Your task to perform on an android device: delete browsing data in the chrome app Image 0: 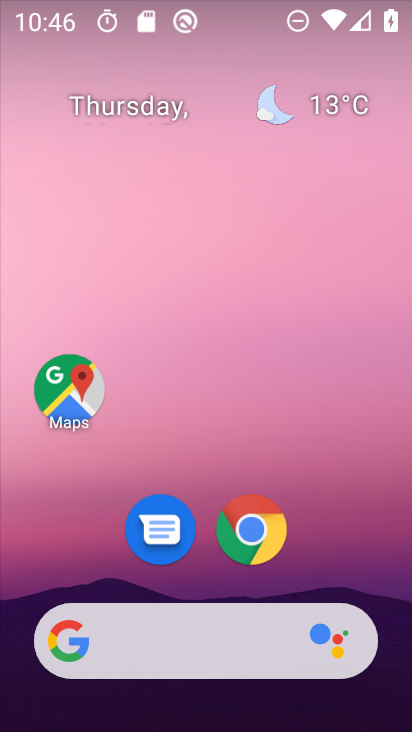
Step 0: click (283, 527)
Your task to perform on an android device: delete browsing data in the chrome app Image 1: 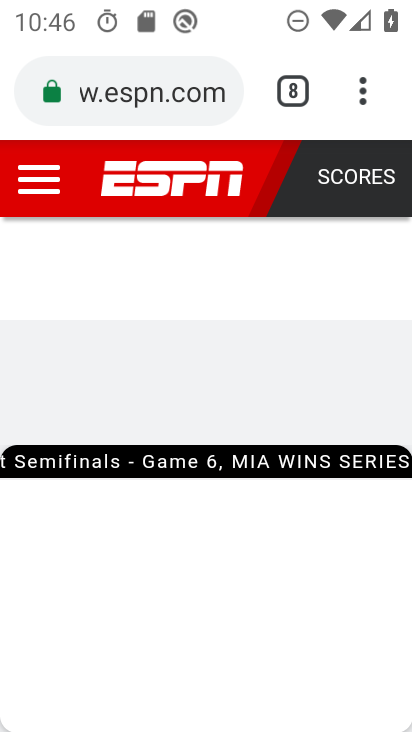
Step 1: click (364, 90)
Your task to perform on an android device: delete browsing data in the chrome app Image 2: 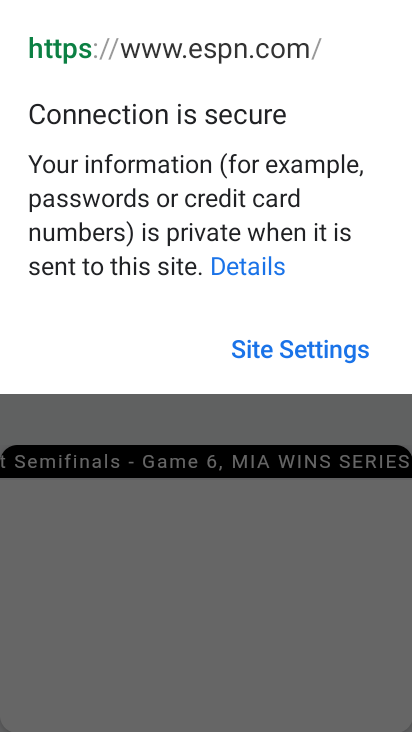
Step 2: press back button
Your task to perform on an android device: delete browsing data in the chrome app Image 3: 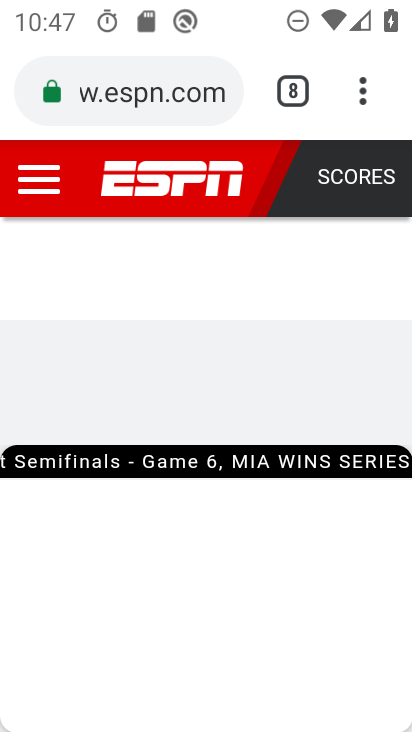
Step 3: click (362, 105)
Your task to perform on an android device: delete browsing data in the chrome app Image 4: 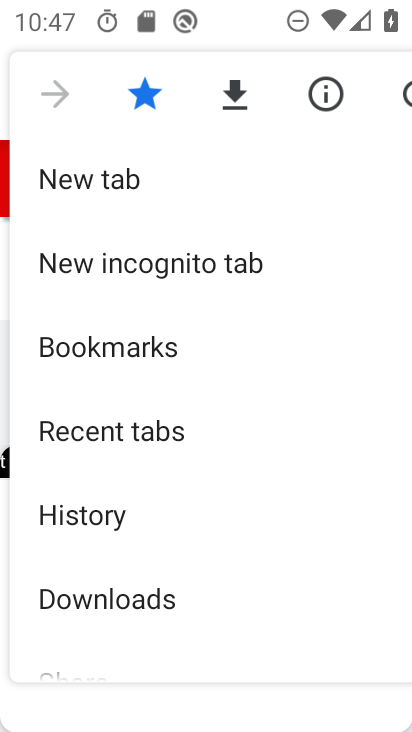
Step 4: drag from (237, 592) to (255, 258)
Your task to perform on an android device: delete browsing data in the chrome app Image 5: 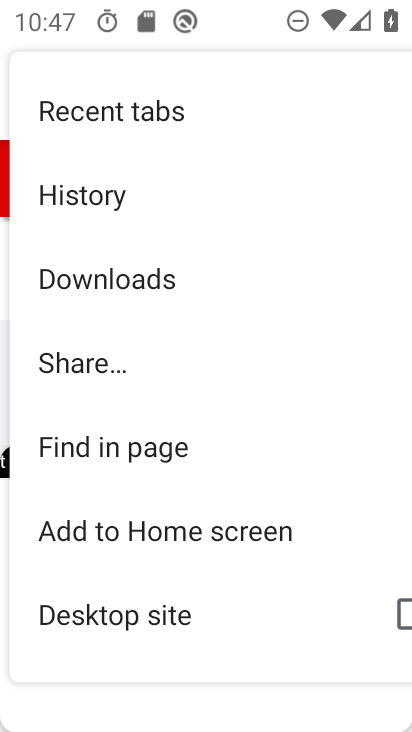
Step 5: drag from (181, 585) to (249, 311)
Your task to perform on an android device: delete browsing data in the chrome app Image 6: 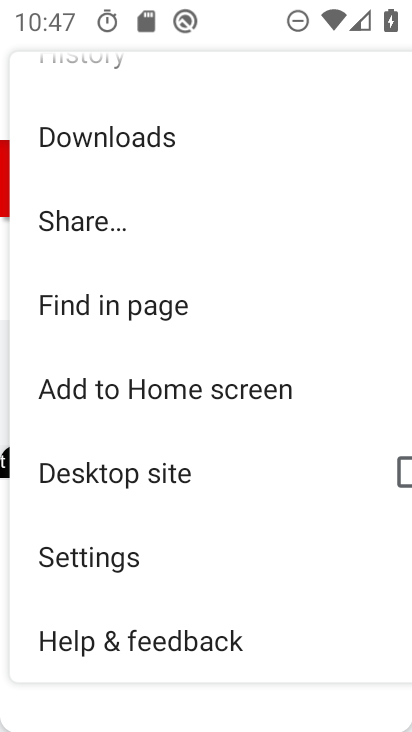
Step 6: drag from (197, 580) to (290, 187)
Your task to perform on an android device: delete browsing data in the chrome app Image 7: 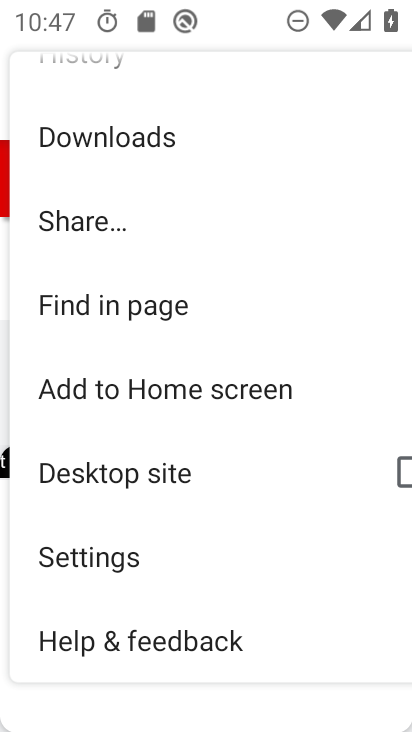
Step 7: click (188, 576)
Your task to perform on an android device: delete browsing data in the chrome app Image 8: 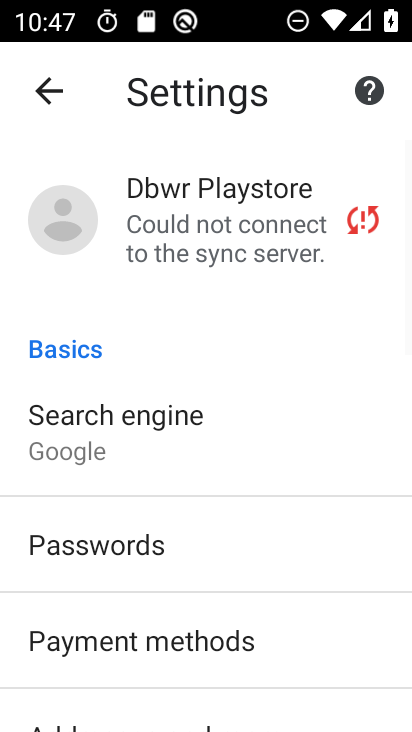
Step 8: drag from (271, 623) to (361, 225)
Your task to perform on an android device: delete browsing data in the chrome app Image 9: 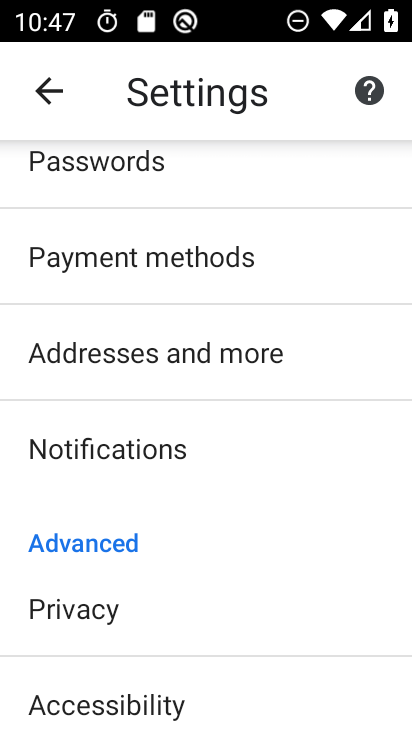
Step 9: drag from (256, 534) to (381, 39)
Your task to perform on an android device: delete browsing data in the chrome app Image 10: 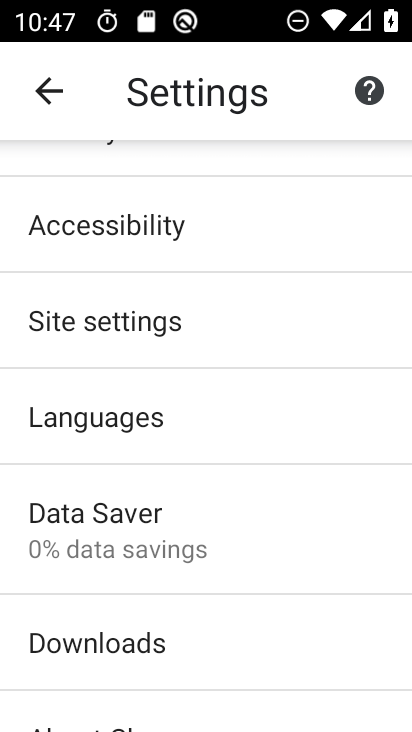
Step 10: drag from (195, 623) to (349, 1)
Your task to perform on an android device: delete browsing data in the chrome app Image 11: 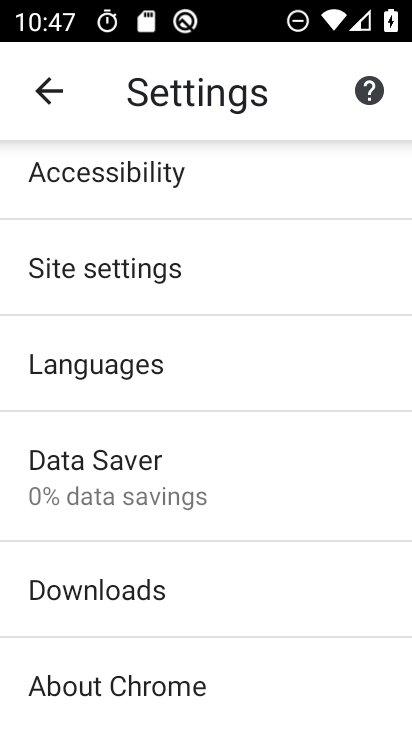
Step 11: click (104, 670)
Your task to perform on an android device: delete browsing data in the chrome app Image 12: 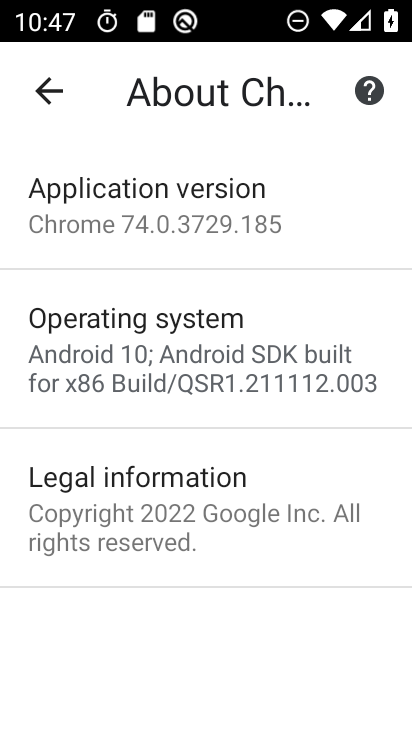
Step 12: press back button
Your task to perform on an android device: delete browsing data in the chrome app Image 13: 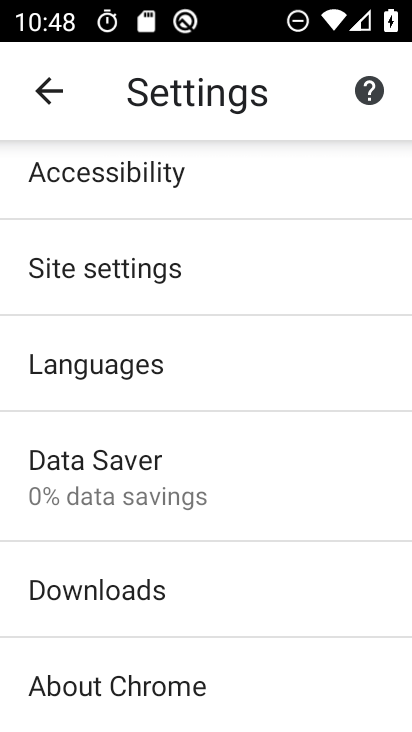
Step 13: click (215, 263)
Your task to perform on an android device: delete browsing data in the chrome app Image 14: 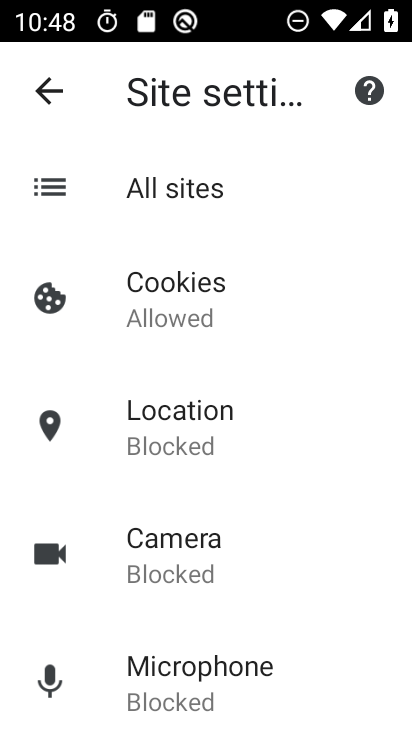
Step 14: drag from (257, 535) to (293, 189)
Your task to perform on an android device: delete browsing data in the chrome app Image 15: 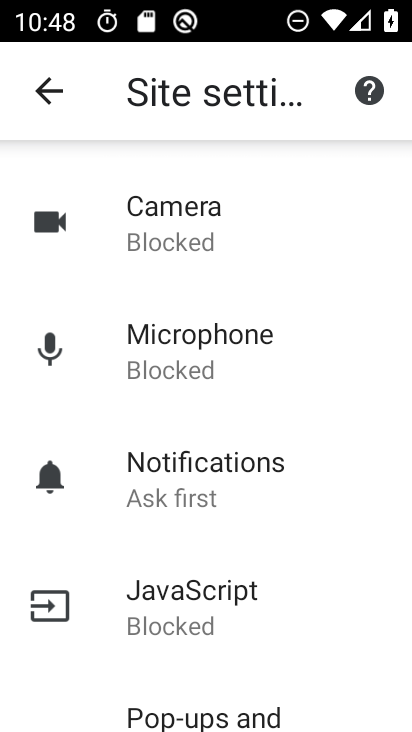
Step 15: drag from (291, 566) to (337, 211)
Your task to perform on an android device: delete browsing data in the chrome app Image 16: 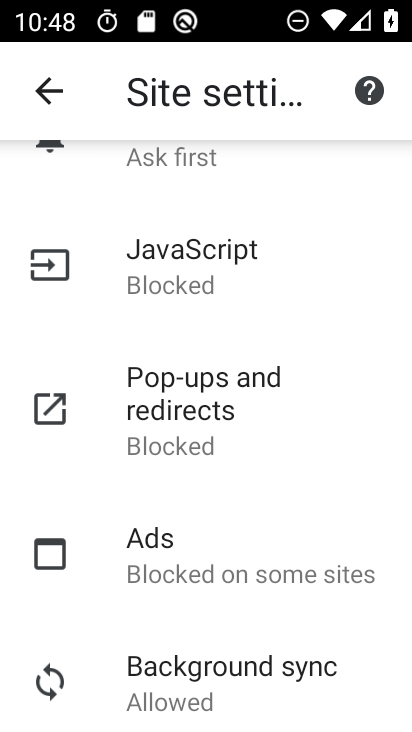
Step 16: drag from (315, 535) to (363, 215)
Your task to perform on an android device: delete browsing data in the chrome app Image 17: 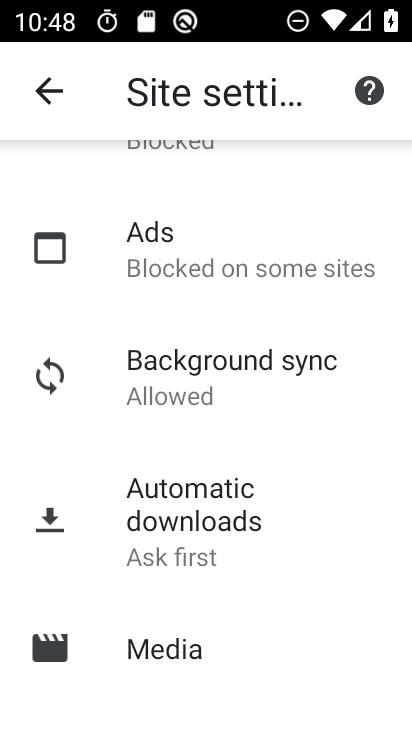
Step 17: drag from (354, 565) to (404, 264)
Your task to perform on an android device: delete browsing data in the chrome app Image 18: 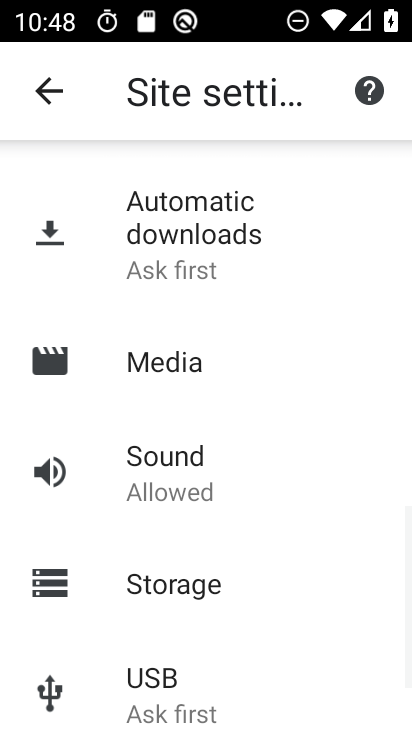
Step 18: drag from (307, 633) to (361, 322)
Your task to perform on an android device: delete browsing data in the chrome app Image 19: 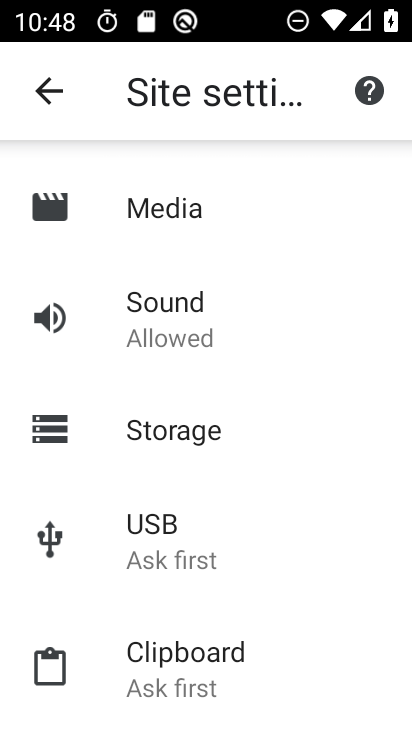
Step 19: drag from (285, 544) to (317, 179)
Your task to perform on an android device: delete browsing data in the chrome app Image 20: 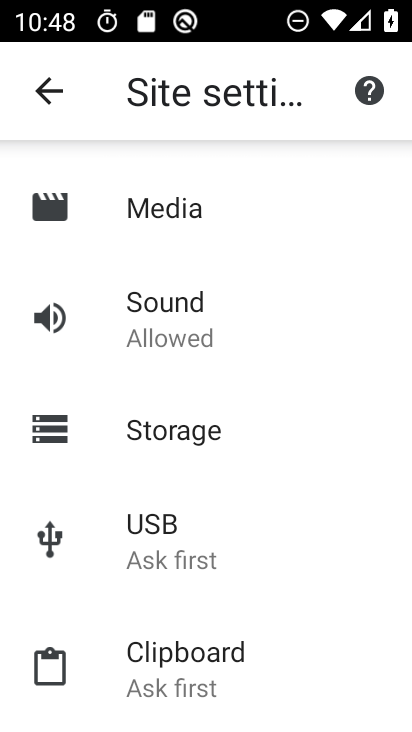
Step 20: press back button
Your task to perform on an android device: delete browsing data in the chrome app Image 21: 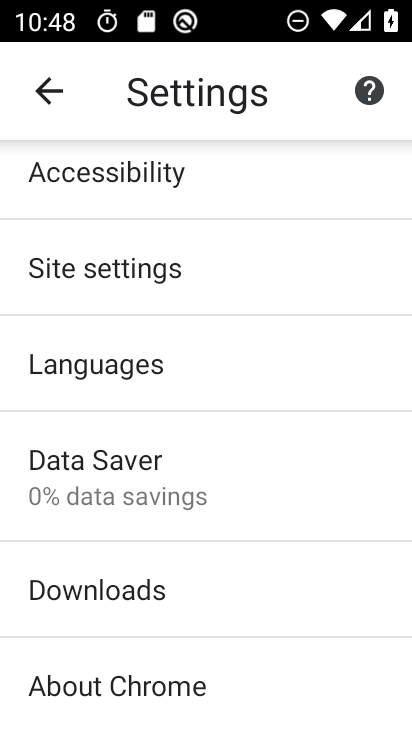
Step 21: drag from (74, 268) to (222, 722)
Your task to perform on an android device: delete browsing data in the chrome app Image 22: 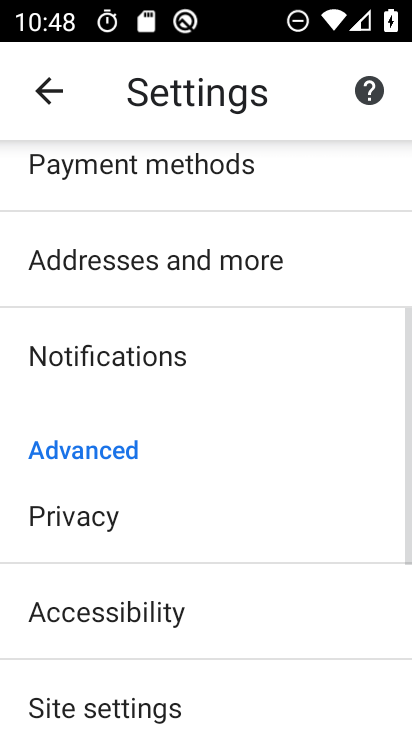
Step 22: drag from (73, 280) to (219, 723)
Your task to perform on an android device: delete browsing data in the chrome app Image 23: 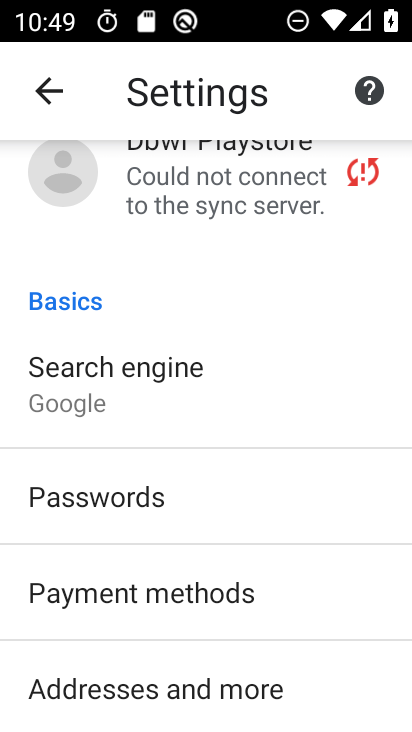
Step 23: click (45, 77)
Your task to perform on an android device: delete browsing data in the chrome app Image 24: 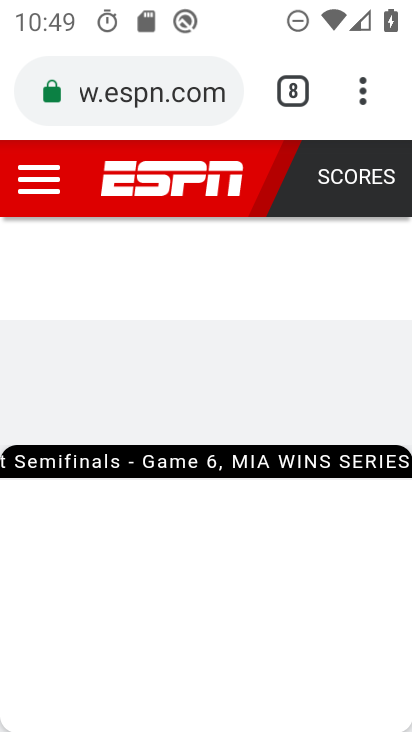
Step 24: click (368, 92)
Your task to perform on an android device: delete browsing data in the chrome app Image 25: 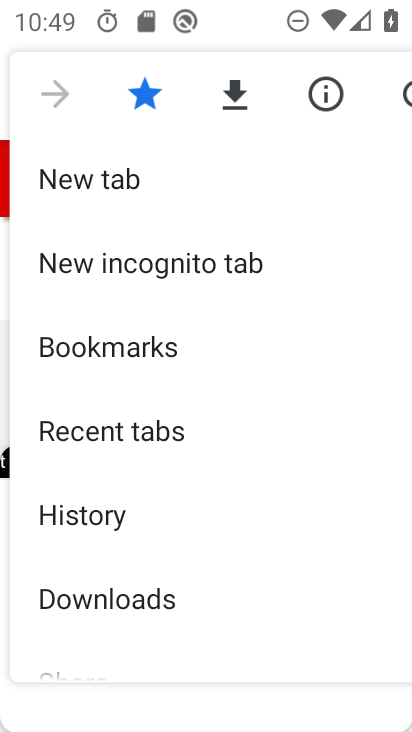
Step 25: click (99, 518)
Your task to perform on an android device: delete browsing data in the chrome app Image 26: 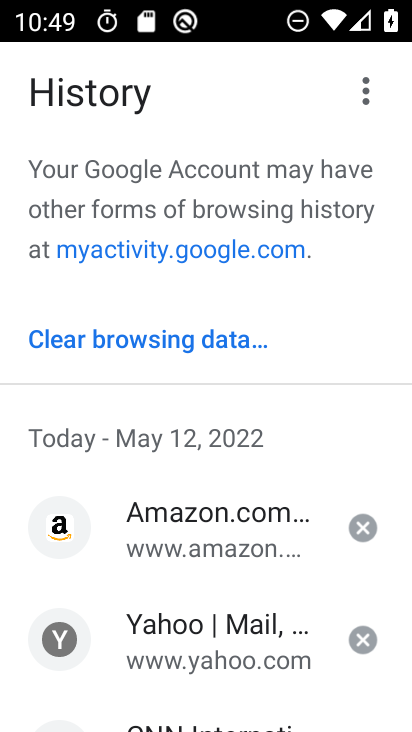
Step 26: click (162, 344)
Your task to perform on an android device: delete browsing data in the chrome app Image 27: 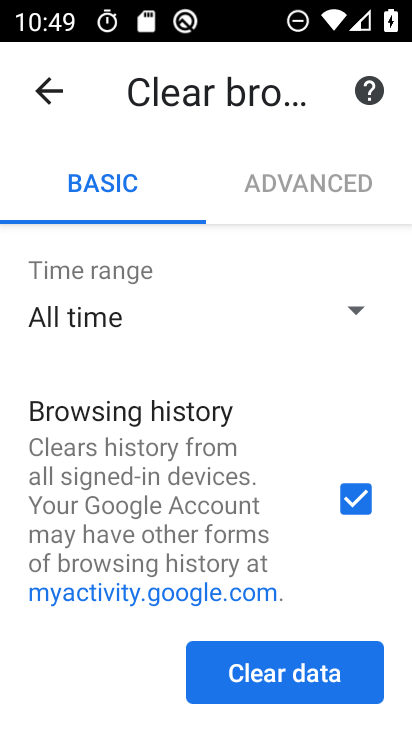
Step 27: drag from (238, 547) to (108, 145)
Your task to perform on an android device: delete browsing data in the chrome app Image 28: 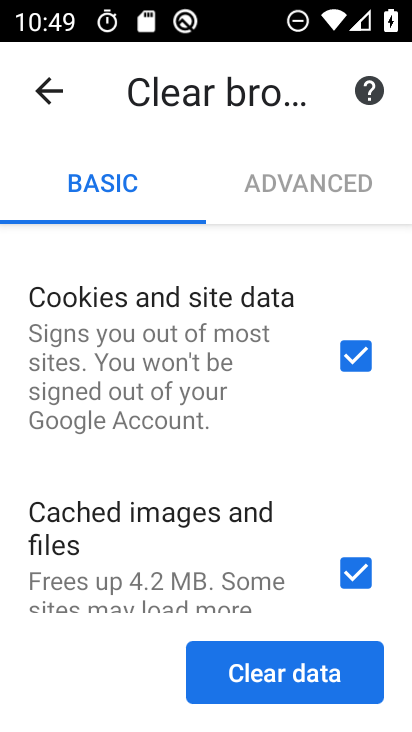
Step 28: click (343, 680)
Your task to perform on an android device: delete browsing data in the chrome app Image 29: 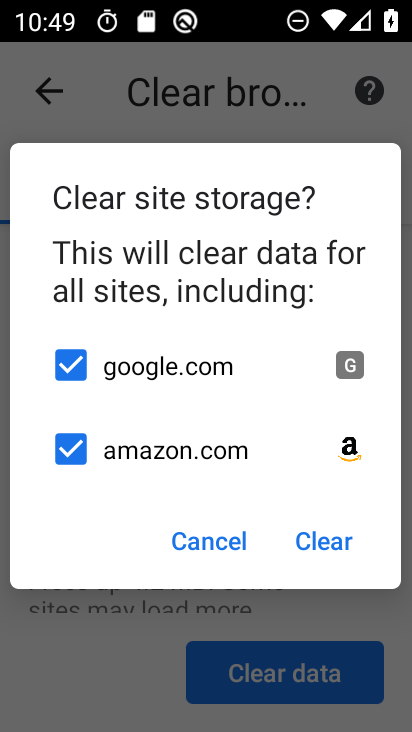
Step 29: click (338, 549)
Your task to perform on an android device: delete browsing data in the chrome app Image 30: 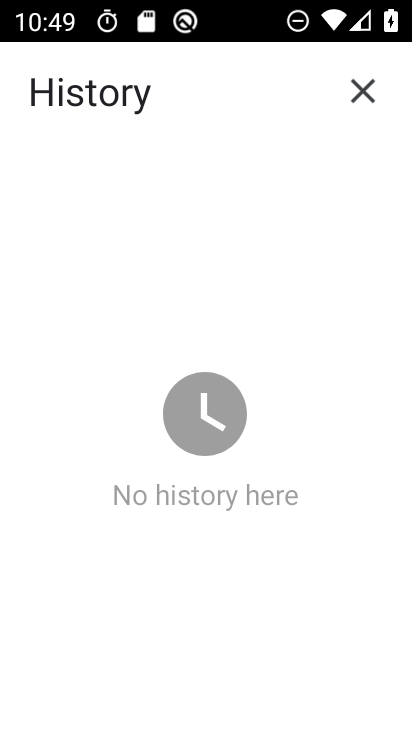
Step 30: task complete